Your task to perform on an android device: set default search engine in the chrome app Image 0: 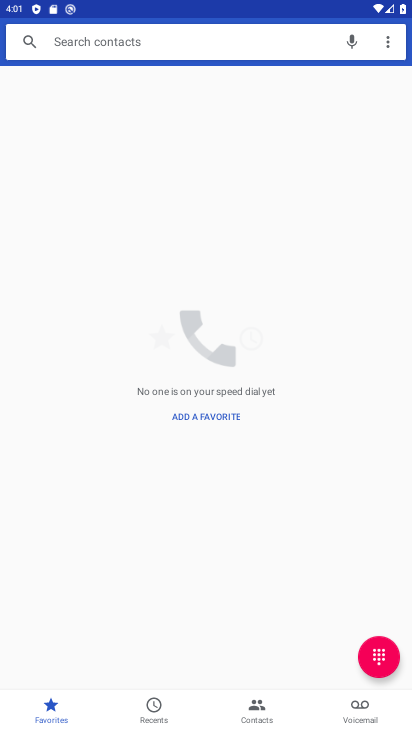
Step 0: press home button
Your task to perform on an android device: set default search engine in the chrome app Image 1: 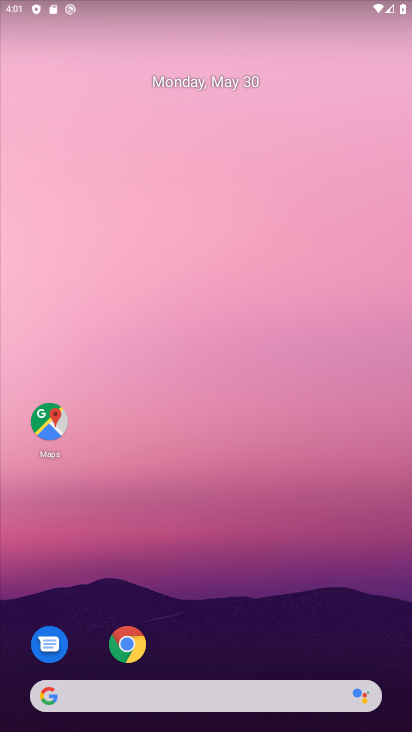
Step 1: click (114, 647)
Your task to perform on an android device: set default search engine in the chrome app Image 2: 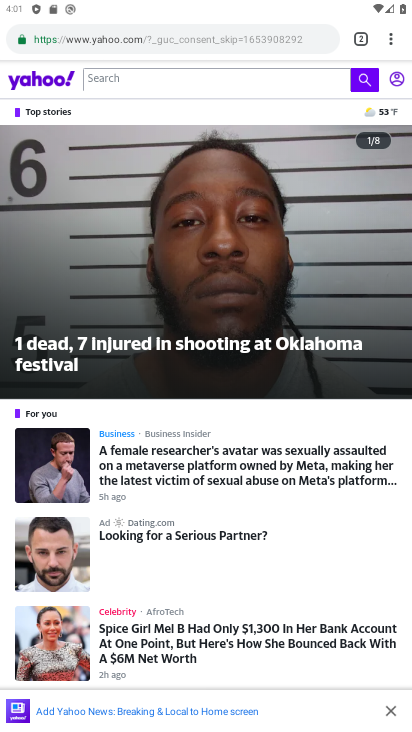
Step 2: click (390, 27)
Your task to perform on an android device: set default search engine in the chrome app Image 3: 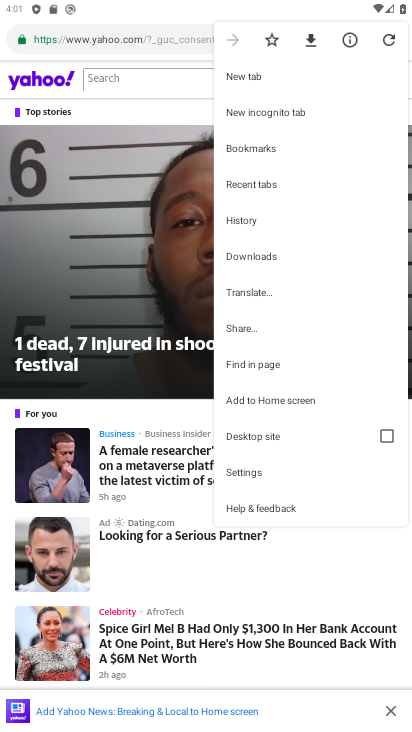
Step 3: click (259, 483)
Your task to perform on an android device: set default search engine in the chrome app Image 4: 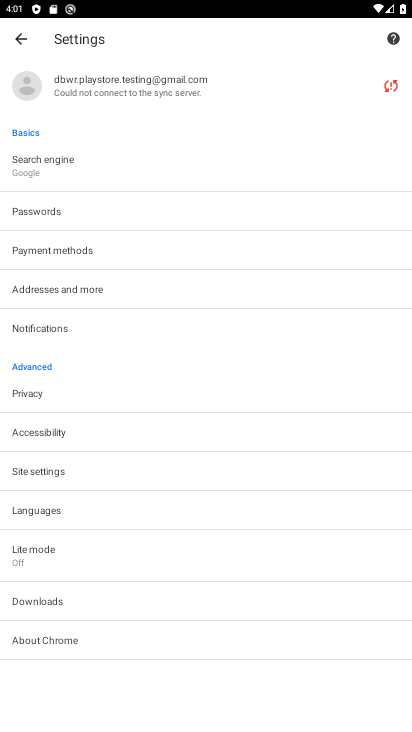
Step 4: click (117, 176)
Your task to perform on an android device: set default search engine in the chrome app Image 5: 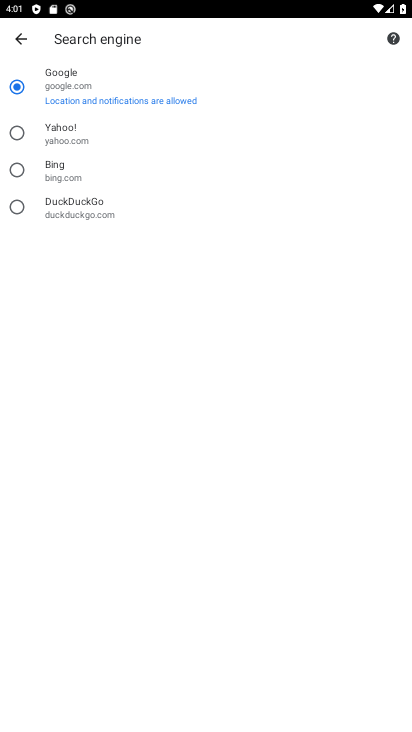
Step 5: click (117, 176)
Your task to perform on an android device: set default search engine in the chrome app Image 6: 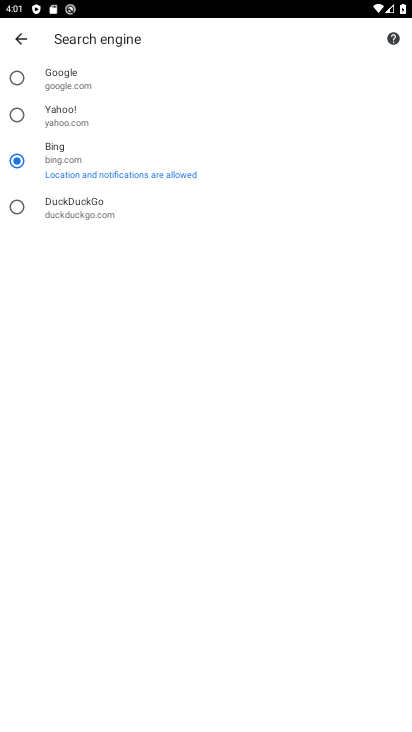
Step 6: task complete